Your task to perform on an android device: turn on data saver in the chrome app Image 0: 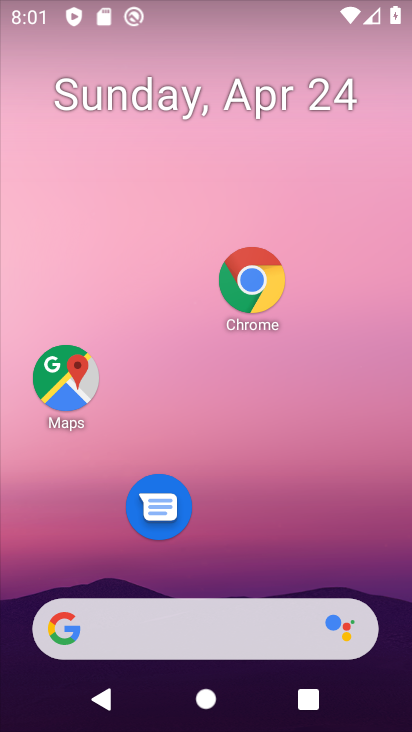
Step 0: drag from (258, 645) to (119, 67)
Your task to perform on an android device: turn on data saver in the chrome app Image 1: 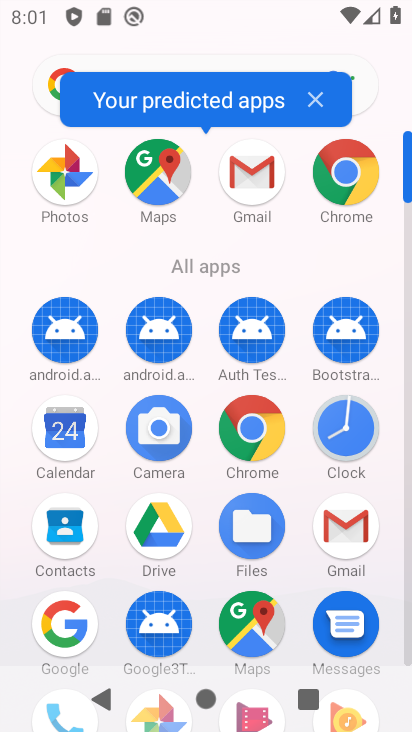
Step 1: click (346, 174)
Your task to perform on an android device: turn on data saver in the chrome app Image 2: 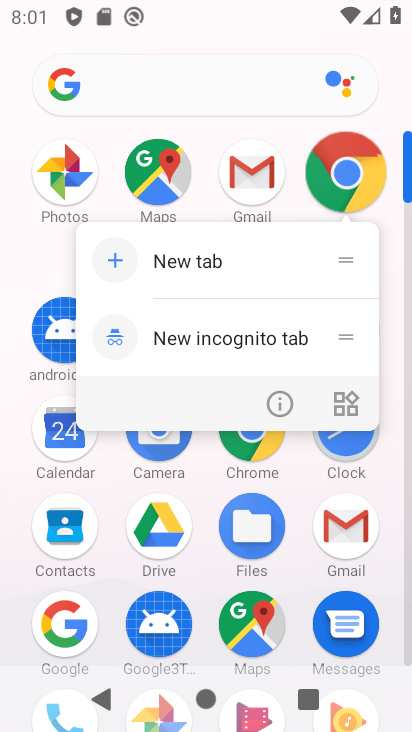
Step 2: click (347, 174)
Your task to perform on an android device: turn on data saver in the chrome app Image 3: 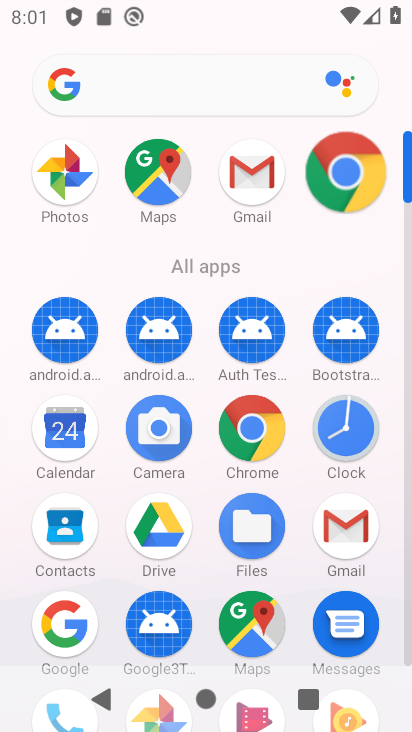
Step 3: click (350, 170)
Your task to perform on an android device: turn on data saver in the chrome app Image 4: 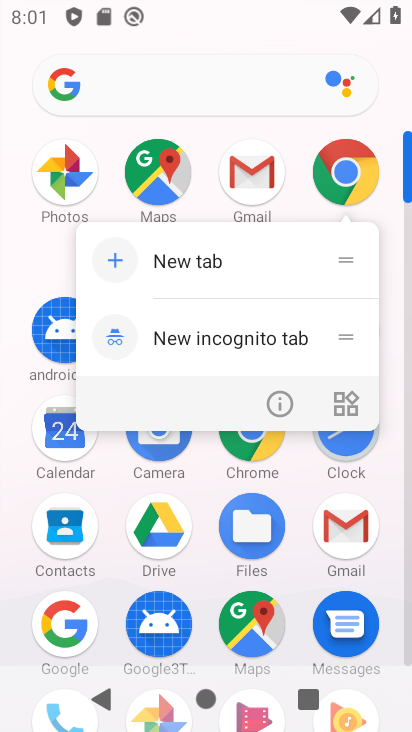
Step 4: click (350, 170)
Your task to perform on an android device: turn on data saver in the chrome app Image 5: 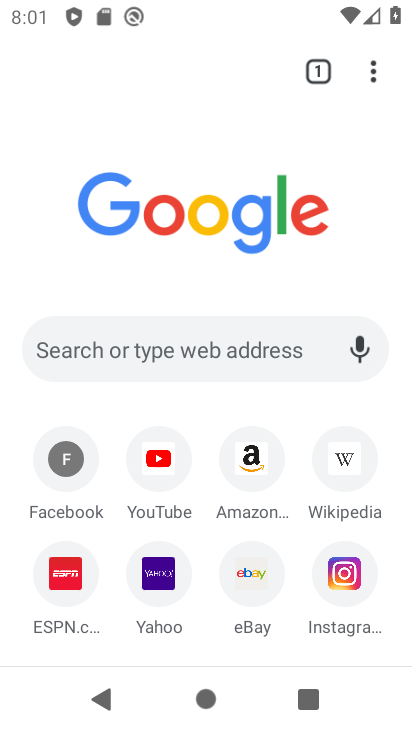
Step 5: drag from (367, 68) to (125, 493)
Your task to perform on an android device: turn on data saver in the chrome app Image 6: 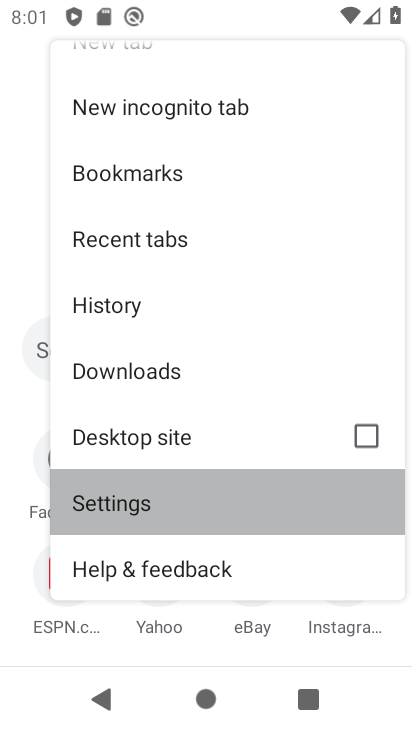
Step 6: click (125, 493)
Your task to perform on an android device: turn on data saver in the chrome app Image 7: 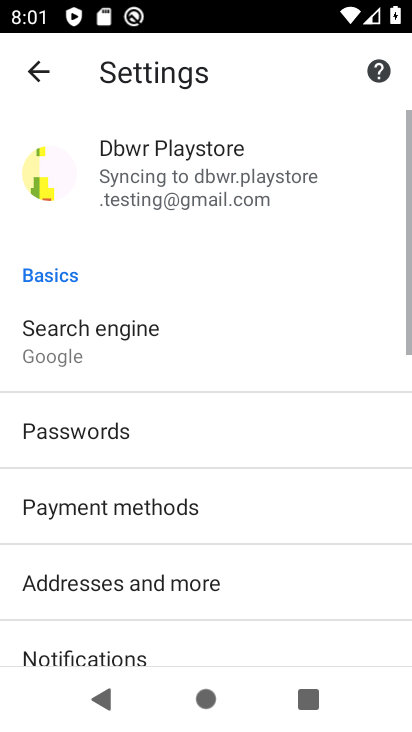
Step 7: drag from (141, 578) to (120, 217)
Your task to perform on an android device: turn on data saver in the chrome app Image 8: 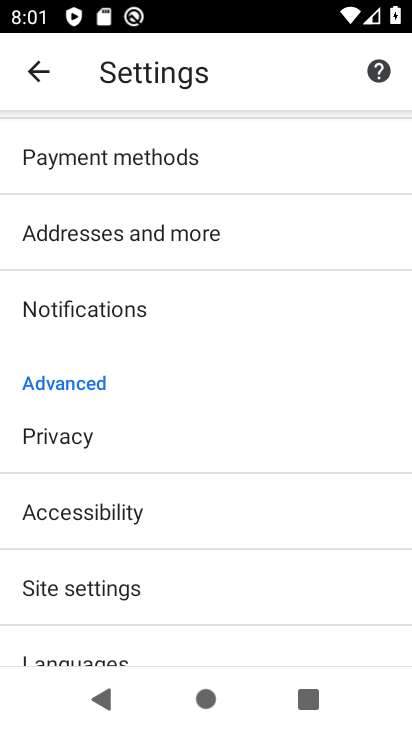
Step 8: drag from (87, 561) to (127, 205)
Your task to perform on an android device: turn on data saver in the chrome app Image 9: 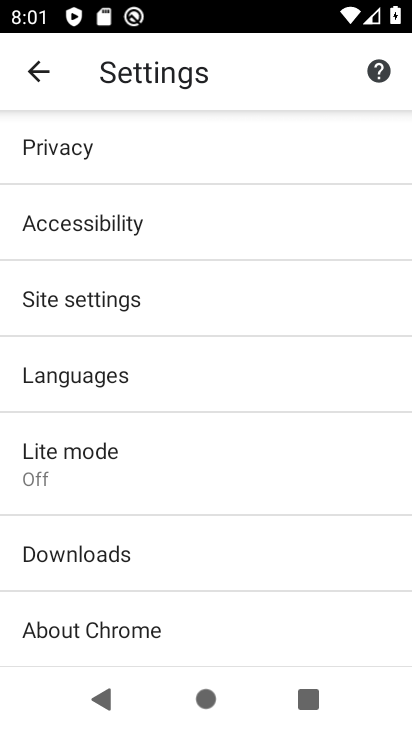
Step 9: click (76, 445)
Your task to perform on an android device: turn on data saver in the chrome app Image 10: 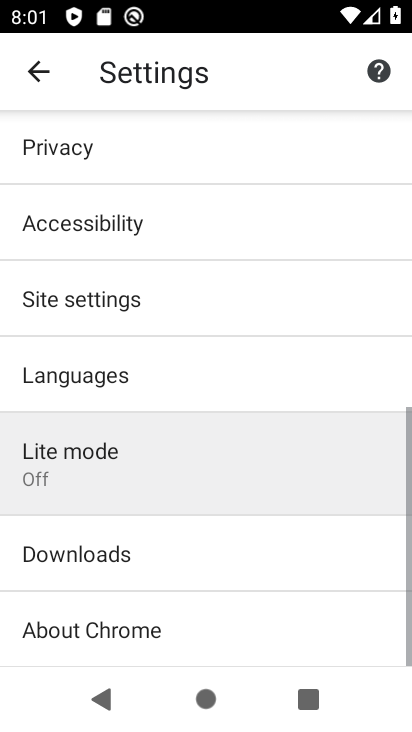
Step 10: click (76, 445)
Your task to perform on an android device: turn on data saver in the chrome app Image 11: 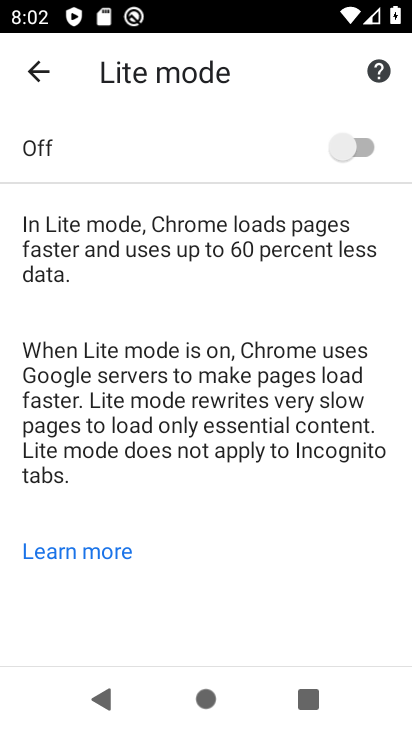
Step 11: click (344, 148)
Your task to perform on an android device: turn on data saver in the chrome app Image 12: 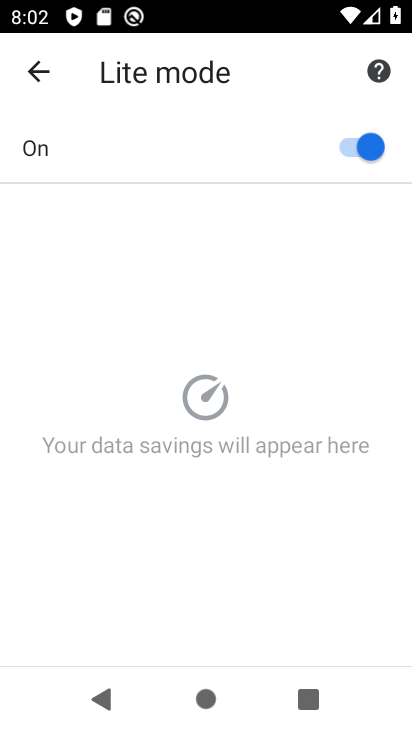
Step 12: task complete